Your task to perform on an android device: change your default location settings in chrome Image 0: 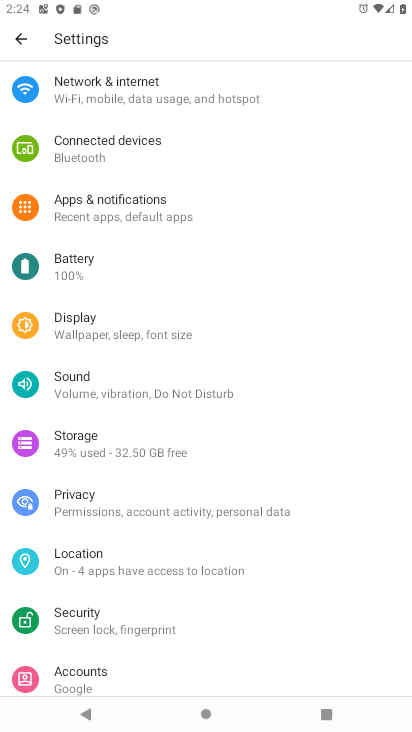
Step 0: press home button
Your task to perform on an android device: change your default location settings in chrome Image 1: 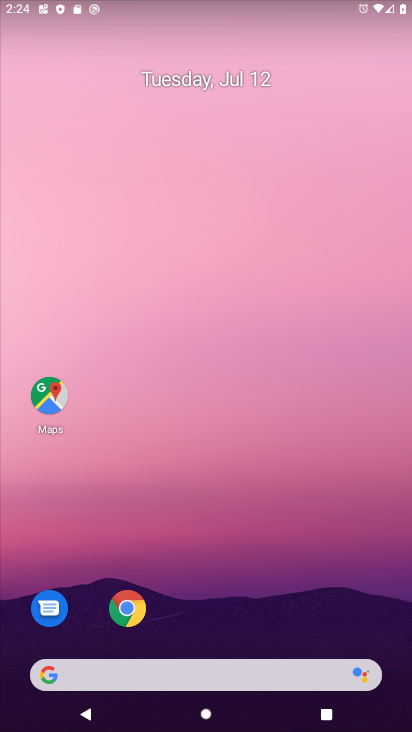
Step 1: drag from (246, 572) to (282, 56)
Your task to perform on an android device: change your default location settings in chrome Image 2: 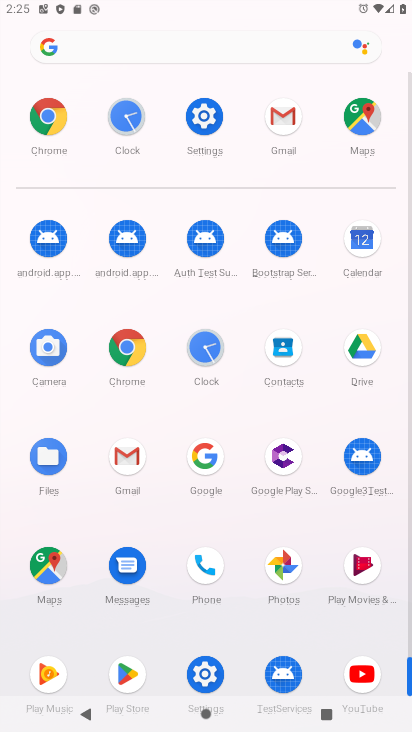
Step 2: click (50, 108)
Your task to perform on an android device: change your default location settings in chrome Image 3: 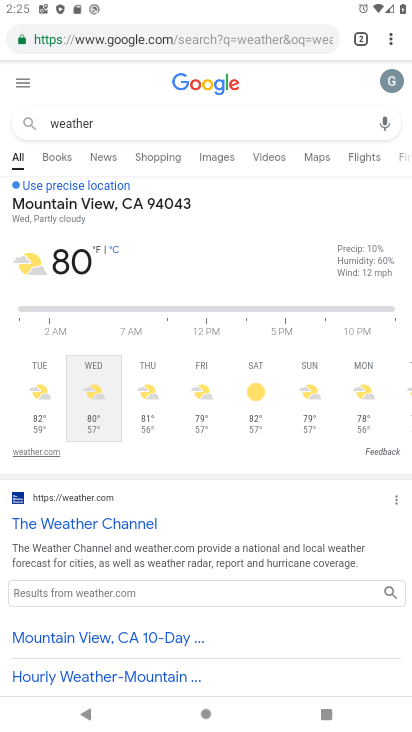
Step 3: drag from (395, 36) to (245, 474)
Your task to perform on an android device: change your default location settings in chrome Image 4: 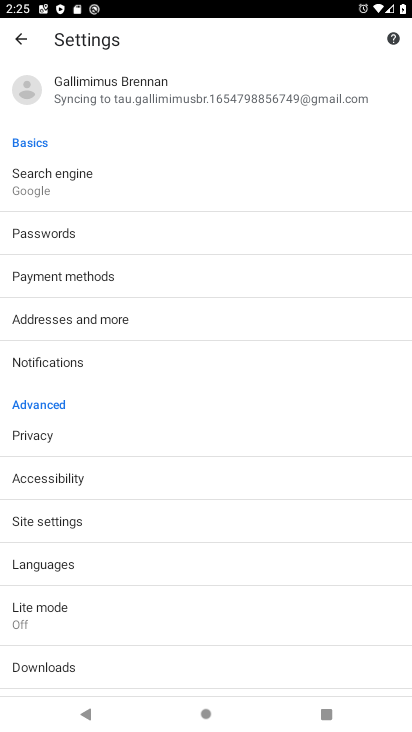
Step 4: click (48, 522)
Your task to perform on an android device: change your default location settings in chrome Image 5: 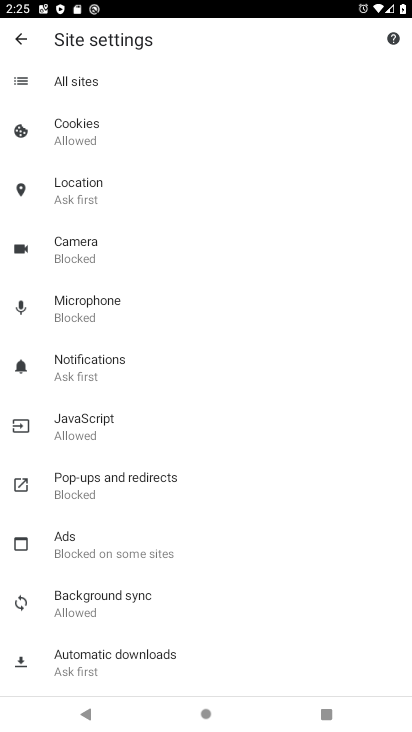
Step 5: click (78, 197)
Your task to perform on an android device: change your default location settings in chrome Image 6: 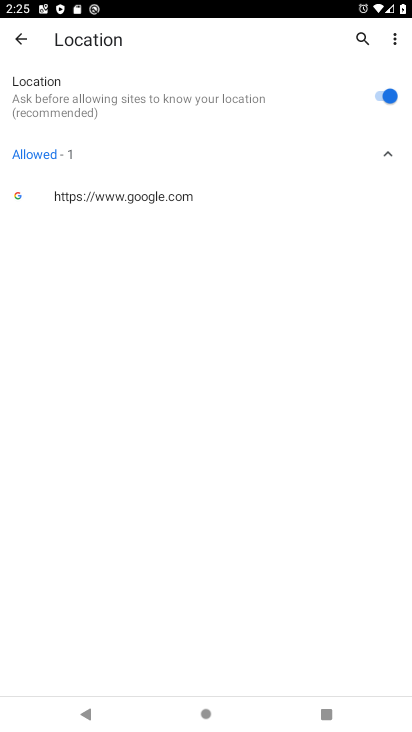
Step 6: click (386, 105)
Your task to perform on an android device: change your default location settings in chrome Image 7: 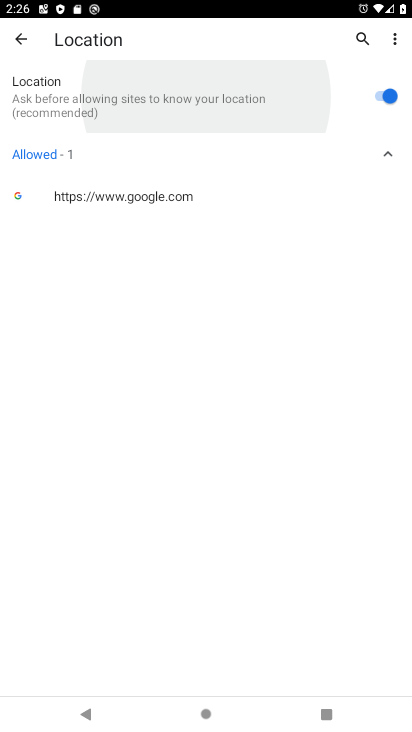
Step 7: click (389, 99)
Your task to perform on an android device: change your default location settings in chrome Image 8: 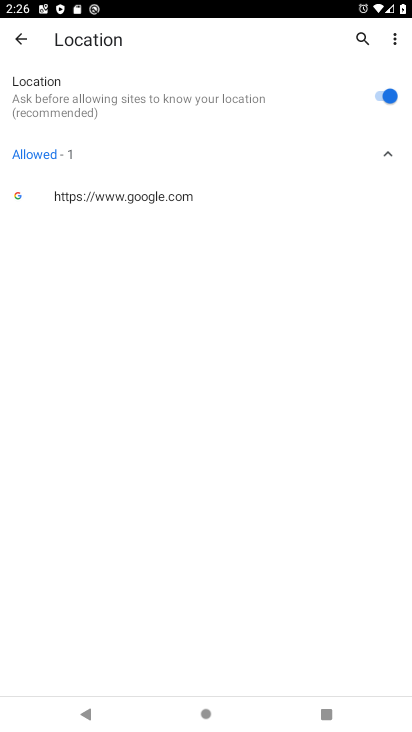
Step 8: task complete